Your task to perform on an android device: turn off airplane mode Image 0: 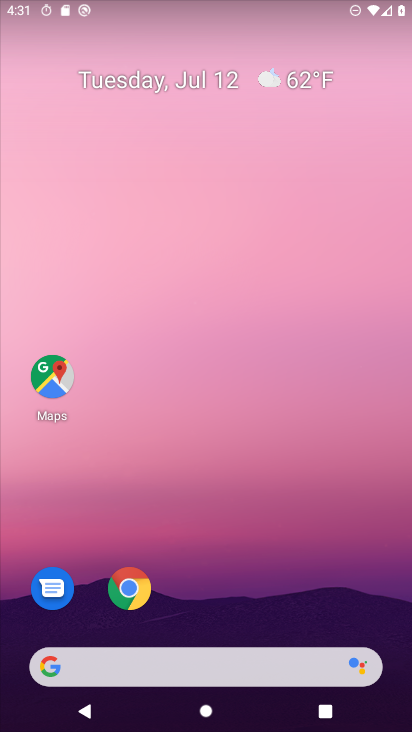
Step 0: drag from (262, 629) to (277, 150)
Your task to perform on an android device: turn off airplane mode Image 1: 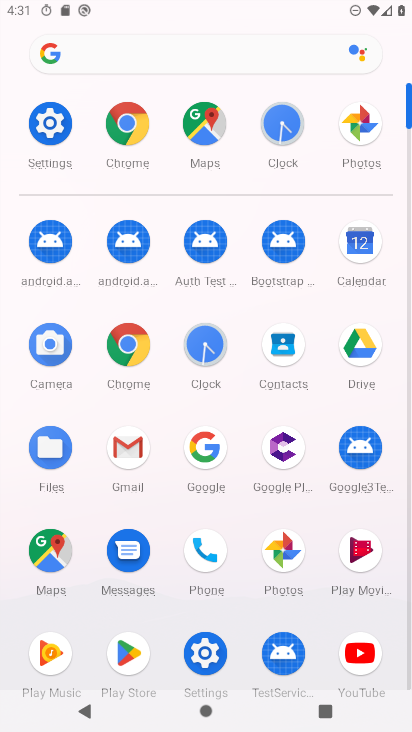
Step 1: click (60, 144)
Your task to perform on an android device: turn off airplane mode Image 2: 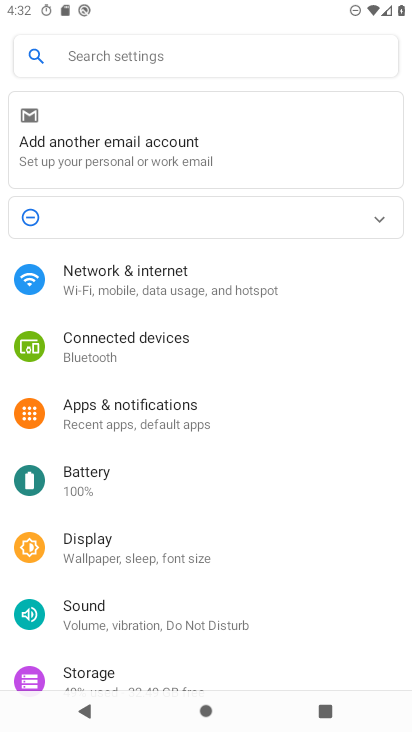
Step 2: click (177, 272)
Your task to perform on an android device: turn off airplane mode Image 3: 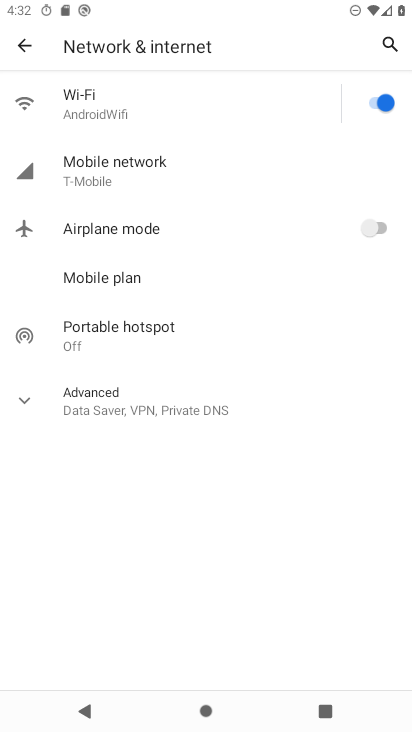
Step 3: task complete